Your task to perform on an android device: Show me recent news Image 0: 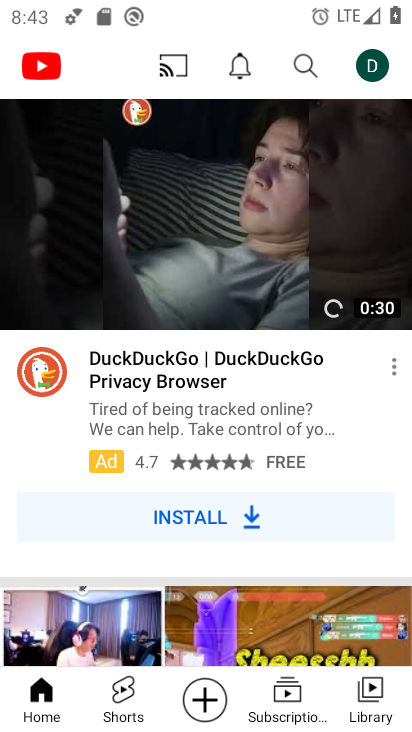
Step 0: press home button
Your task to perform on an android device: Show me recent news Image 1: 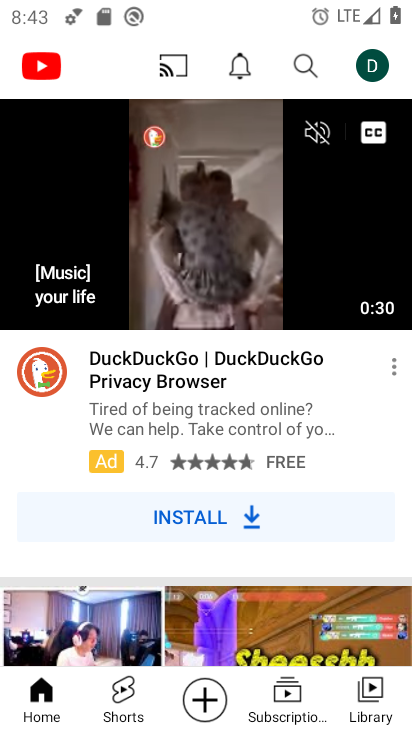
Step 1: task complete